Your task to perform on an android device: Go to wifi settings Image 0: 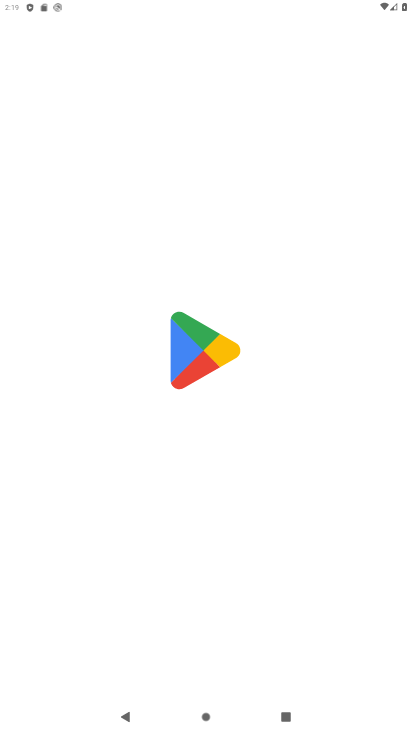
Step 0: drag from (329, 558) to (289, 58)
Your task to perform on an android device: Go to wifi settings Image 1: 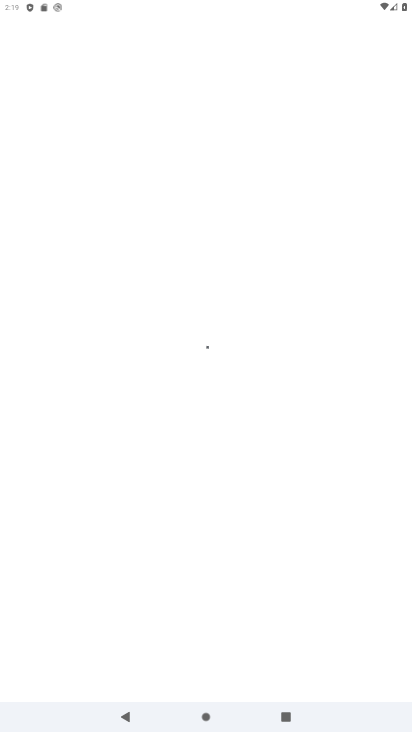
Step 1: drag from (169, 8) to (176, 599)
Your task to perform on an android device: Go to wifi settings Image 2: 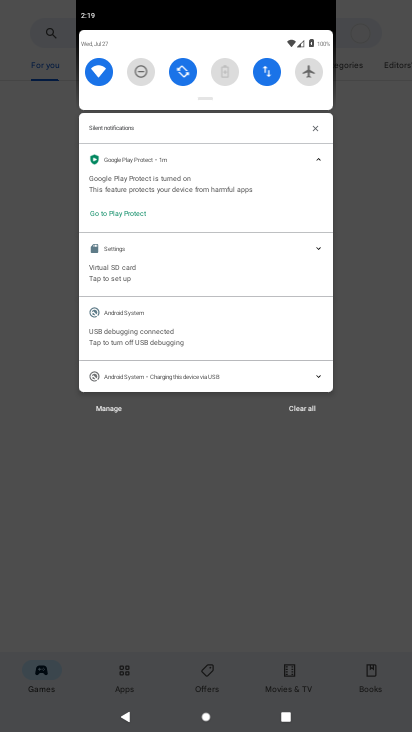
Step 2: drag from (75, 7) to (162, 521)
Your task to perform on an android device: Go to wifi settings Image 3: 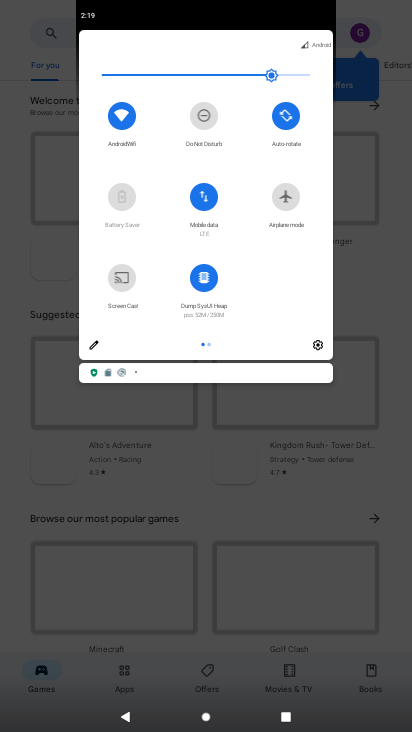
Step 3: click (118, 115)
Your task to perform on an android device: Go to wifi settings Image 4: 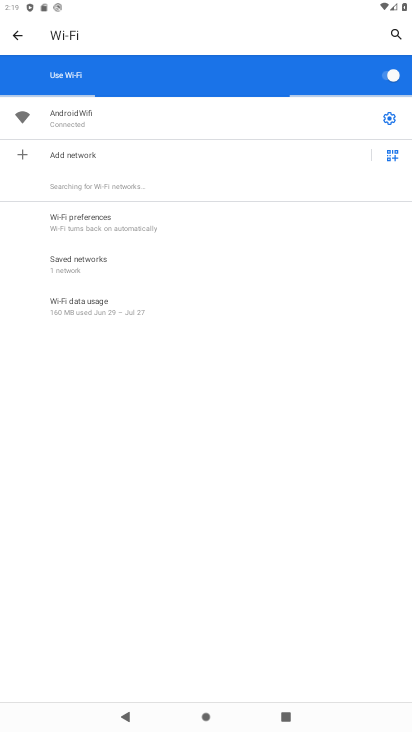
Step 4: task complete